Your task to perform on an android device: allow cookies in the chrome app Image 0: 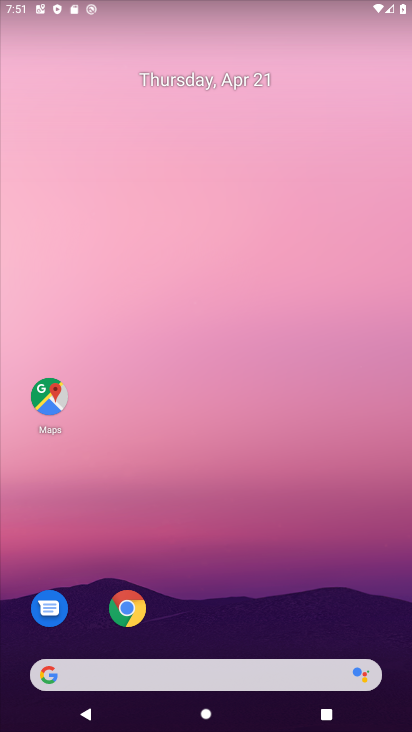
Step 0: click (136, 609)
Your task to perform on an android device: allow cookies in the chrome app Image 1: 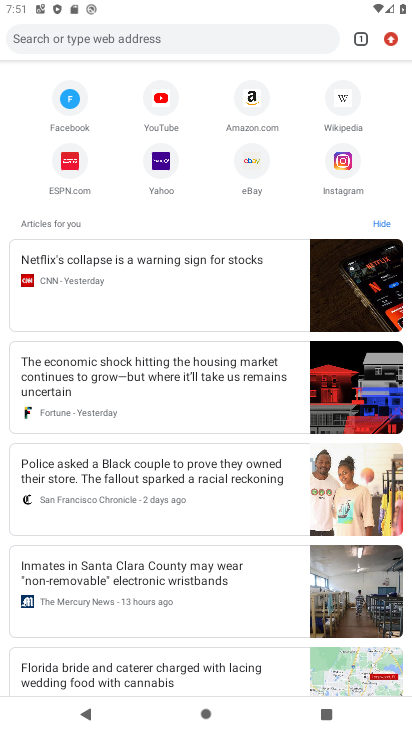
Step 1: click (397, 40)
Your task to perform on an android device: allow cookies in the chrome app Image 2: 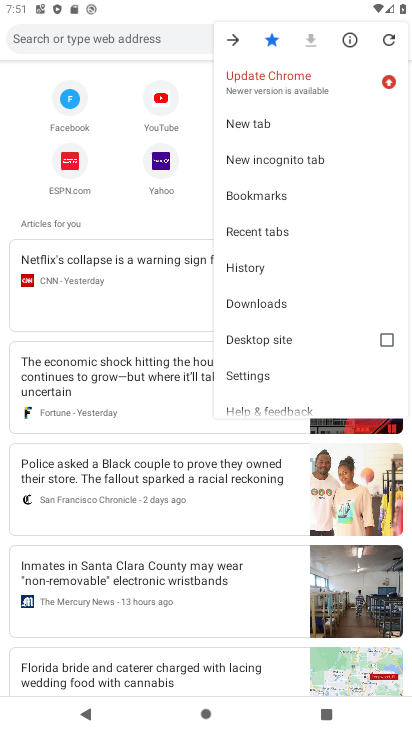
Step 2: click (239, 375)
Your task to perform on an android device: allow cookies in the chrome app Image 3: 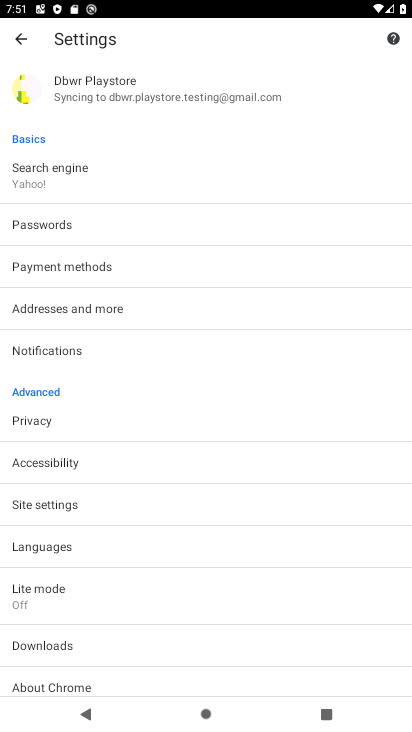
Step 3: click (56, 505)
Your task to perform on an android device: allow cookies in the chrome app Image 4: 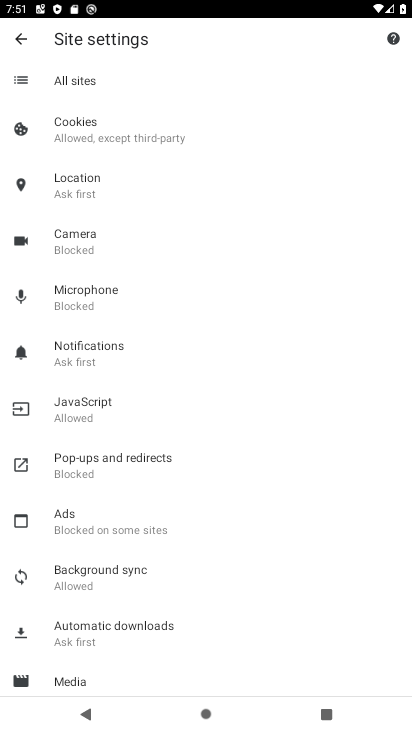
Step 4: click (81, 131)
Your task to perform on an android device: allow cookies in the chrome app Image 5: 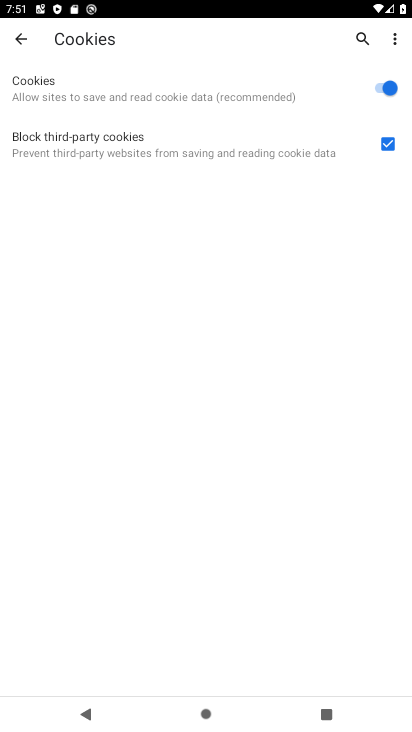
Step 5: task complete